Your task to perform on an android device: turn off location Image 0: 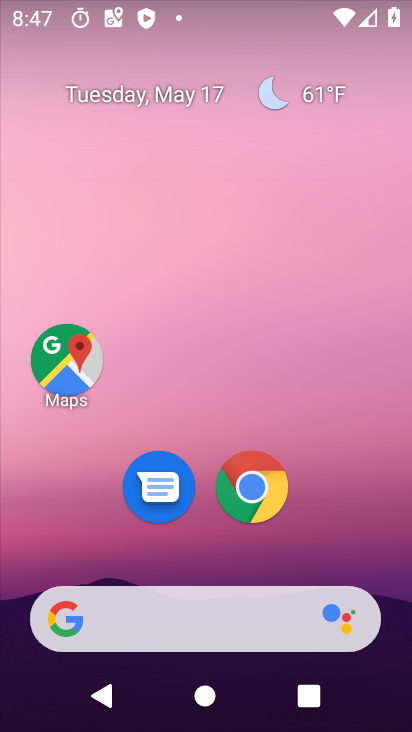
Step 0: press home button
Your task to perform on an android device: turn off location Image 1: 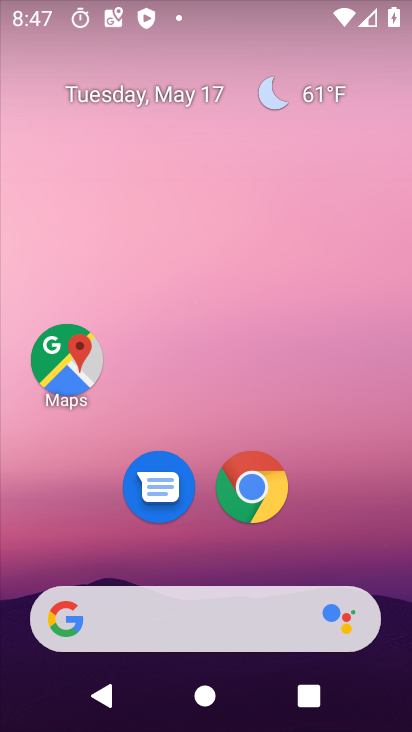
Step 1: drag from (187, 637) to (331, 124)
Your task to perform on an android device: turn off location Image 2: 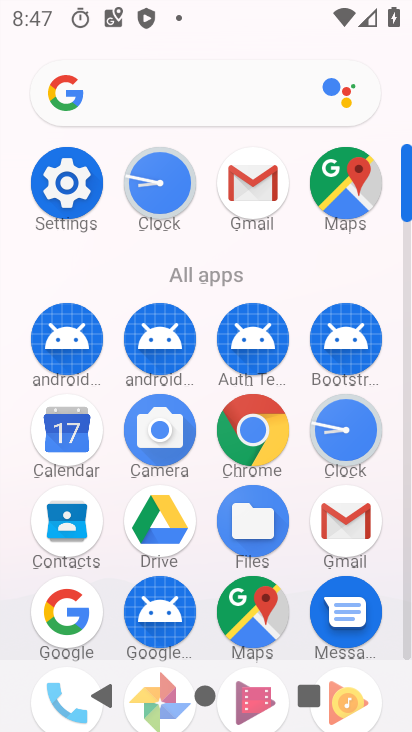
Step 2: click (63, 196)
Your task to perform on an android device: turn off location Image 3: 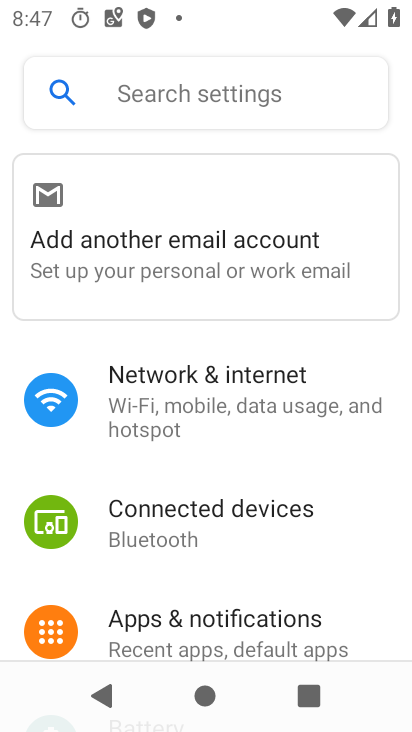
Step 3: drag from (253, 585) to (365, 192)
Your task to perform on an android device: turn off location Image 4: 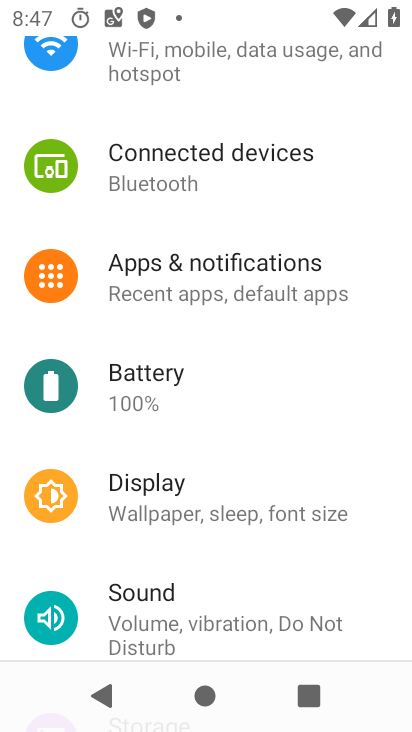
Step 4: drag from (213, 554) to (363, 110)
Your task to perform on an android device: turn off location Image 5: 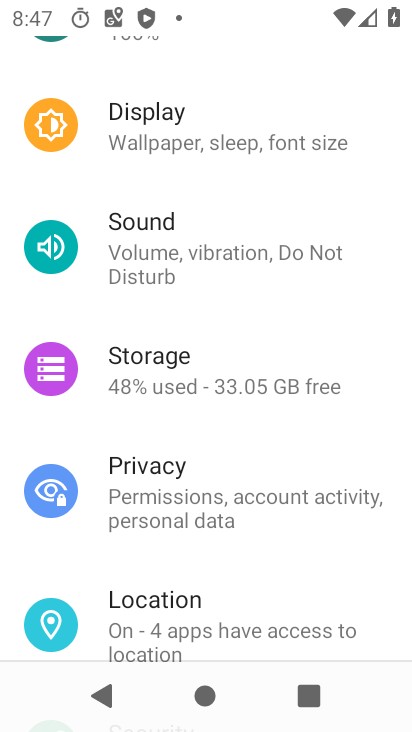
Step 5: click (152, 598)
Your task to perform on an android device: turn off location Image 6: 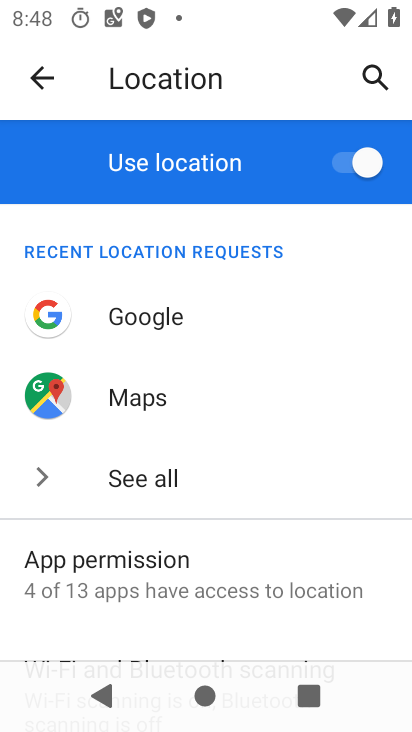
Step 6: click (344, 173)
Your task to perform on an android device: turn off location Image 7: 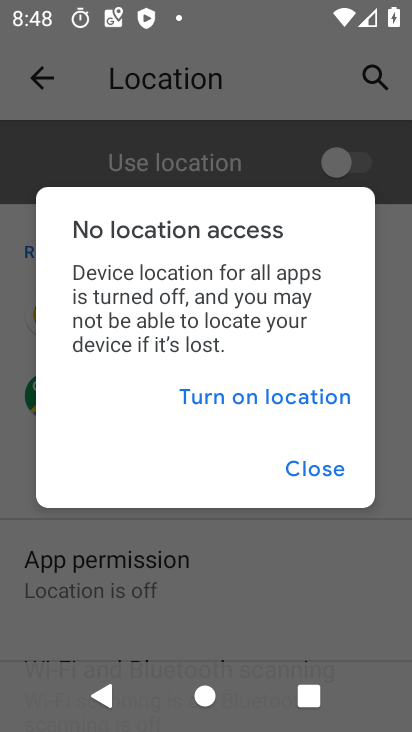
Step 7: click (307, 470)
Your task to perform on an android device: turn off location Image 8: 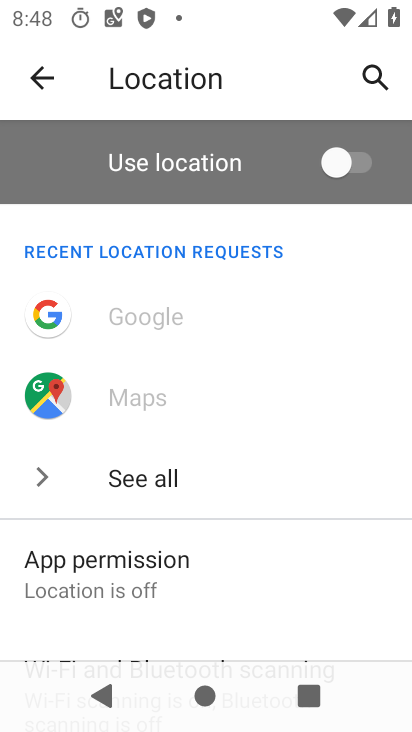
Step 8: task complete